Your task to perform on an android device: turn on airplane mode Image 0: 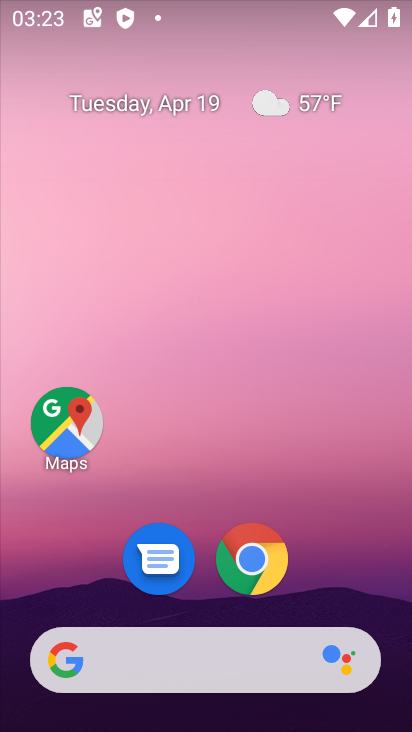
Step 0: drag from (236, 23) to (237, 603)
Your task to perform on an android device: turn on airplane mode Image 1: 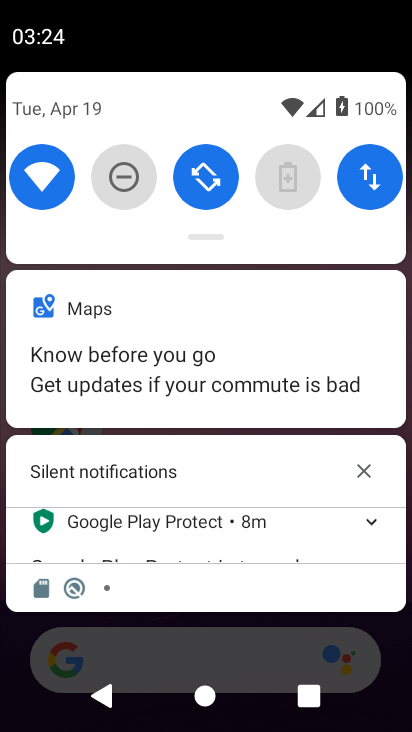
Step 1: drag from (237, 246) to (244, 669)
Your task to perform on an android device: turn on airplane mode Image 2: 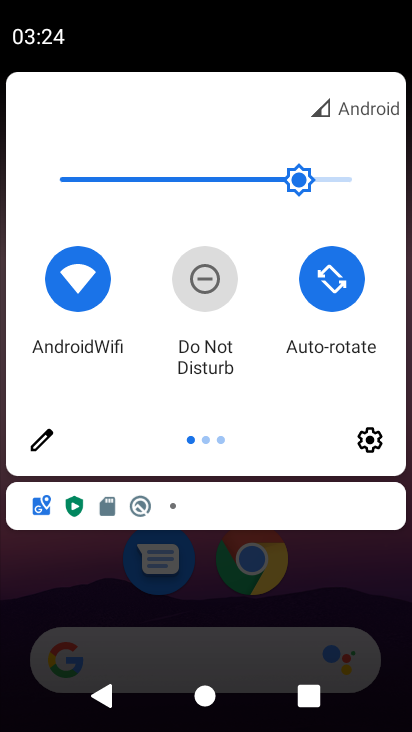
Step 2: drag from (302, 307) to (58, 492)
Your task to perform on an android device: turn on airplane mode Image 3: 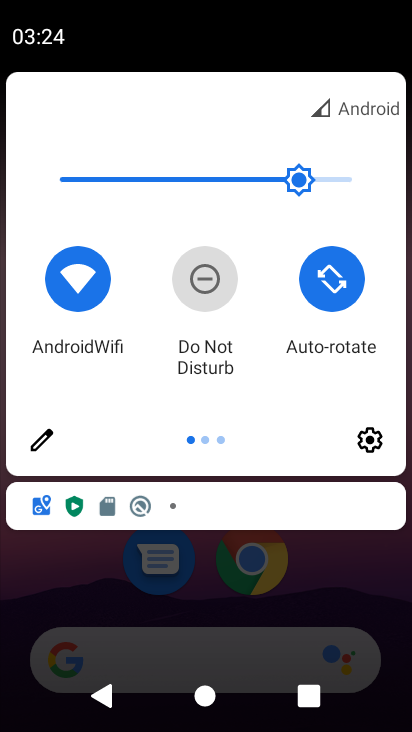
Step 3: drag from (162, 314) to (6, 299)
Your task to perform on an android device: turn on airplane mode Image 4: 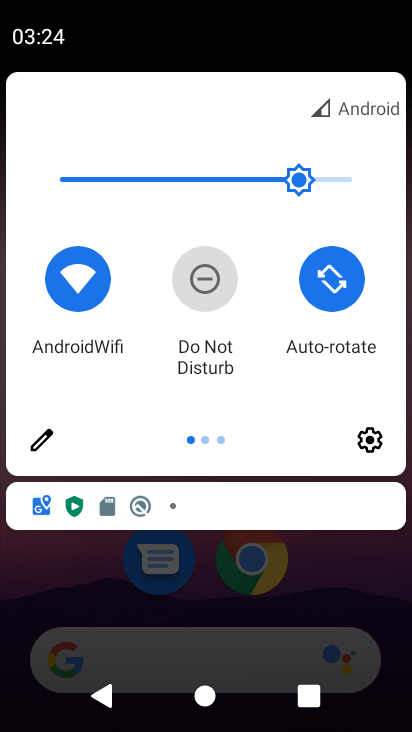
Step 4: drag from (364, 313) to (0, 321)
Your task to perform on an android device: turn on airplane mode Image 5: 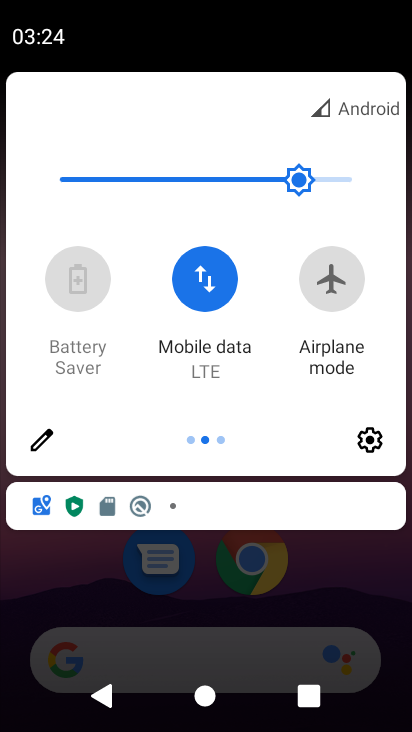
Step 5: click (338, 293)
Your task to perform on an android device: turn on airplane mode Image 6: 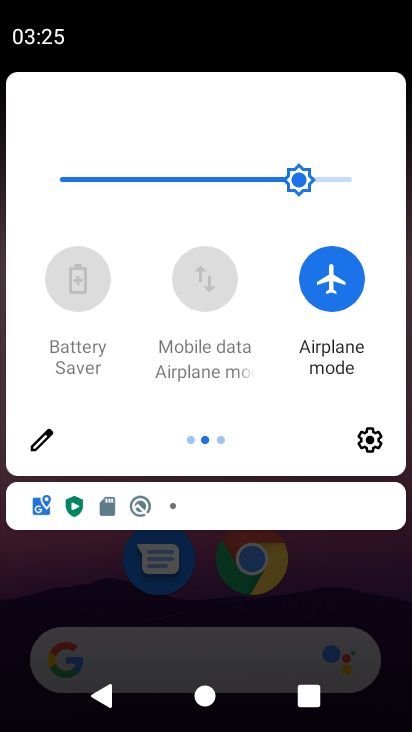
Step 6: task complete